Your task to perform on an android device: Open notification settings Image 0: 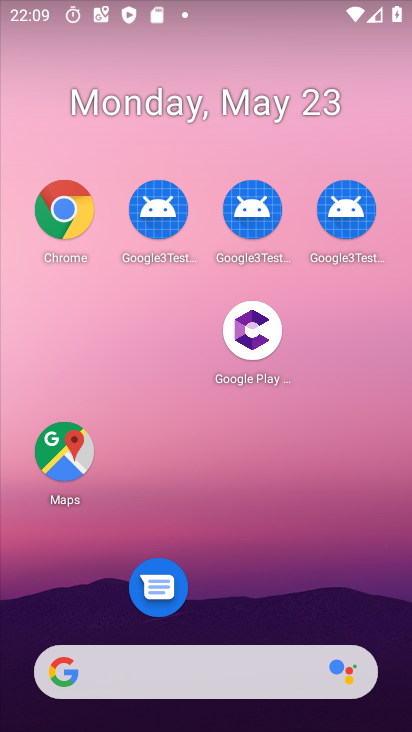
Step 0: drag from (281, 611) to (305, 97)
Your task to perform on an android device: Open notification settings Image 1: 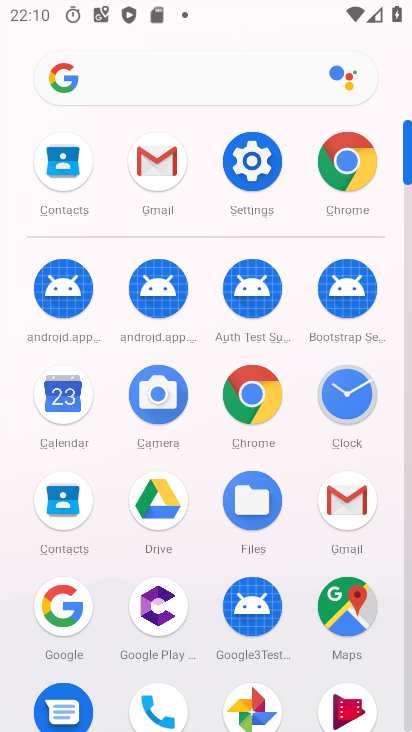
Step 1: click (248, 162)
Your task to perform on an android device: Open notification settings Image 2: 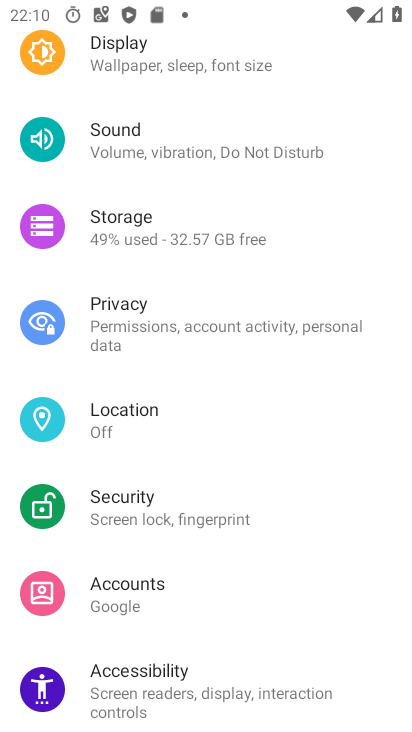
Step 2: drag from (277, 206) to (319, 675)
Your task to perform on an android device: Open notification settings Image 3: 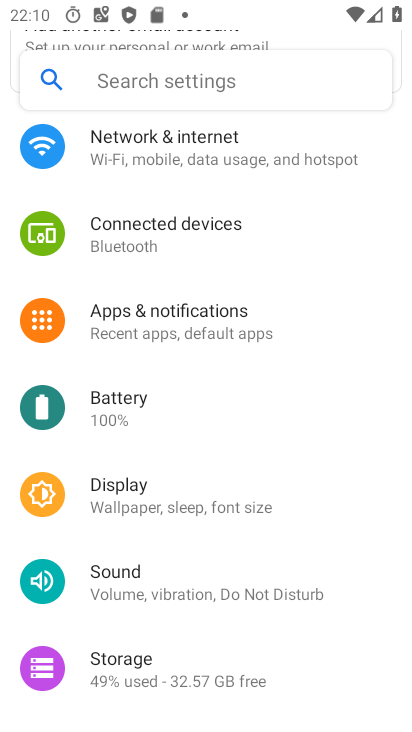
Step 3: click (224, 337)
Your task to perform on an android device: Open notification settings Image 4: 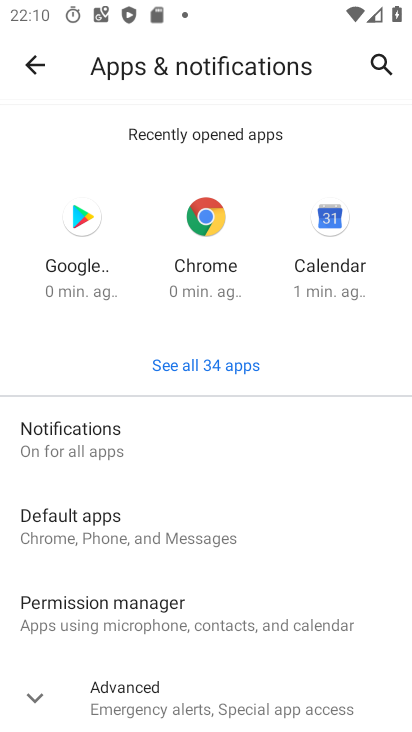
Step 4: task complete